Your task to perform on an android device: visit the assistant section in the google photos Image 0: 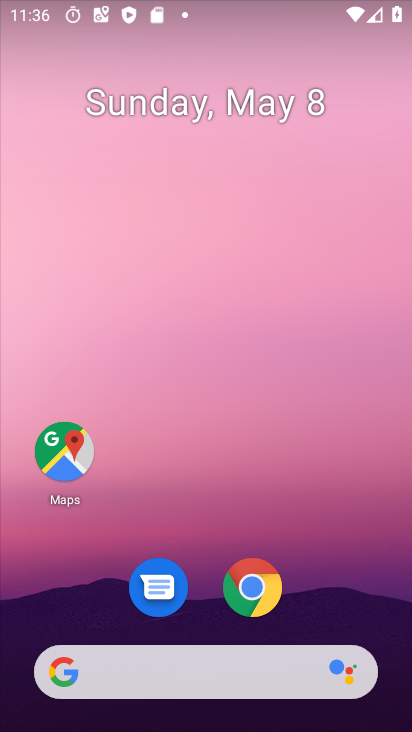
Step 0: drag from (372, 662) to (163, 101)
Your task to perform on an android device: visit the assistant section in the google photos Image 1: 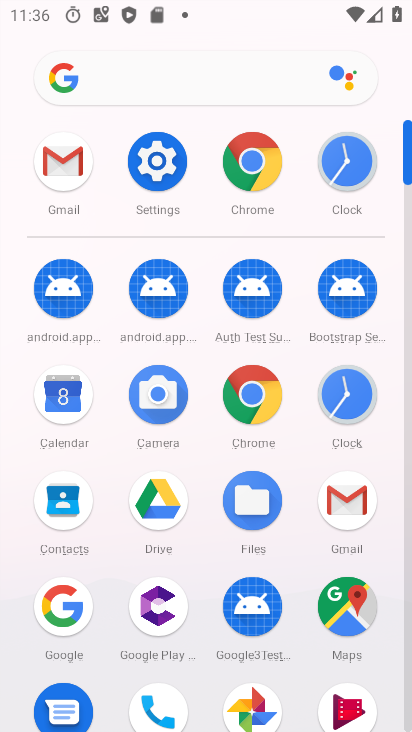
Step 1: click (261, 712)
Your task to perform on an android device: visit the assistant section in the google photos Image 2: 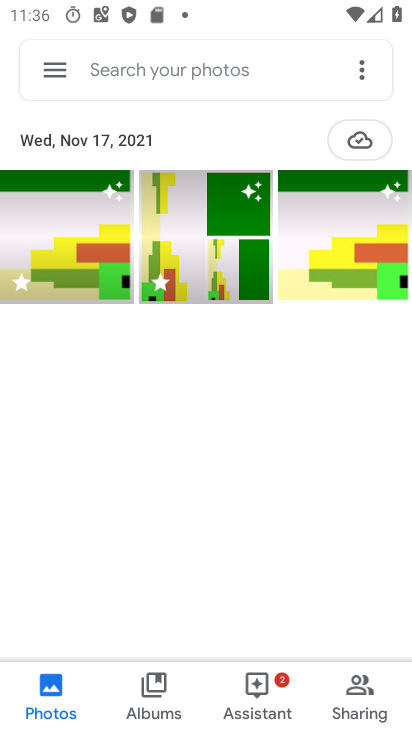
Step 2: click (261, 699)
Your task to perform on an android device: visit the assistant section in the google photos Image 3: 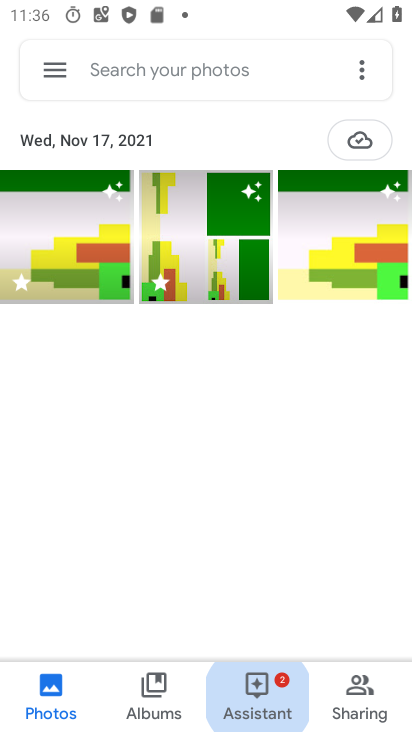
Step 3: click (259, 691)
Your task to perform on an android device: visit the assistant section in the google photos Image 4: 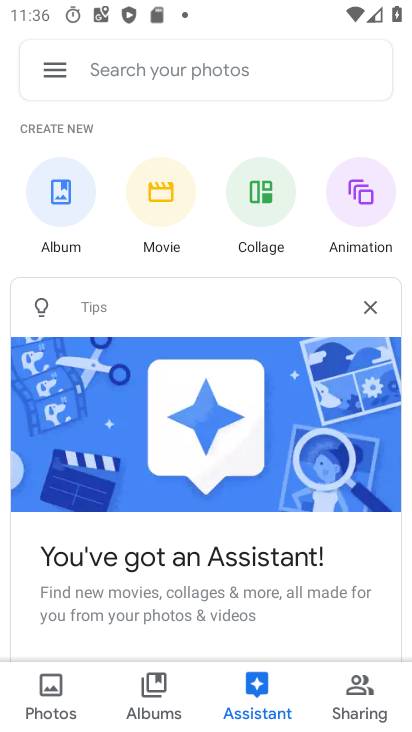
Step 4: task complete